Your task to perform on an android device: Go to Android settings Image 0: 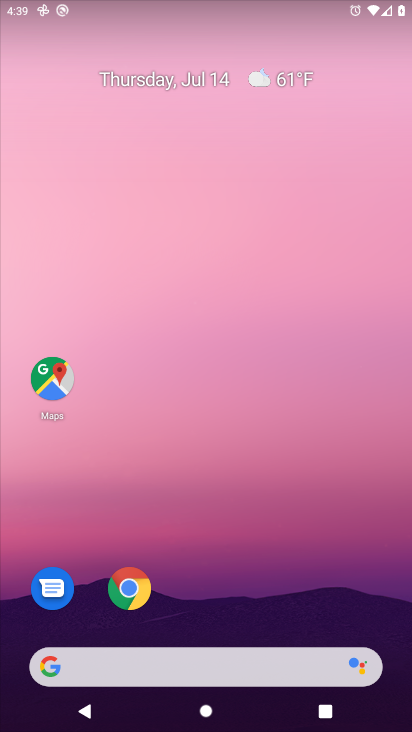
Step 0: drag from (199, 622) to (195, 38)
Your task to perform on an android device: Go to Android settings Image 1: 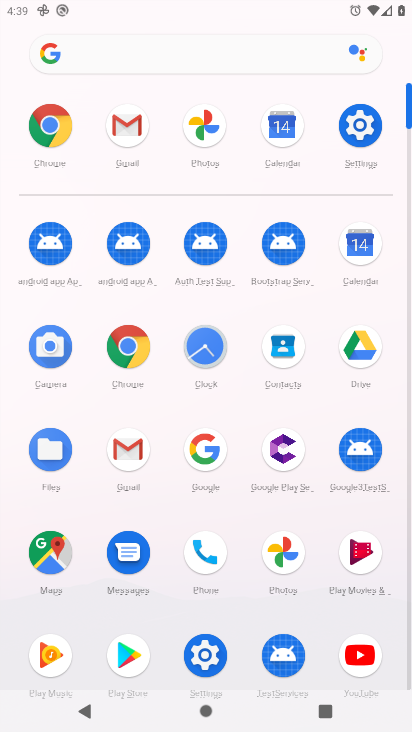
Step 1: click (353, 129)
Your task to perform on an android device: Go to Android settings Image 2: 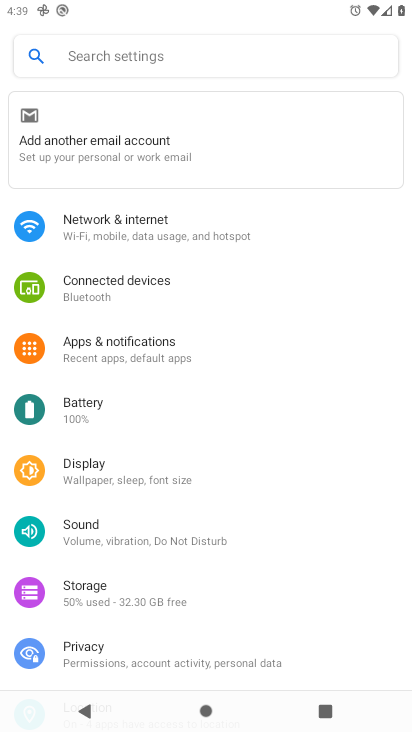
Step 2: task complete